Your task to perform on an android device: Open location settings Image 0: 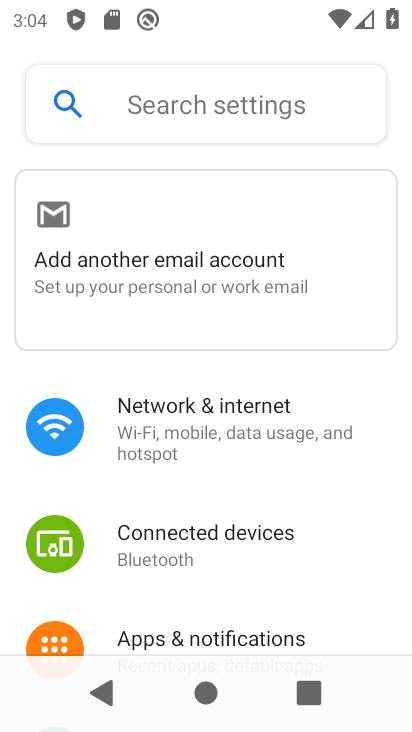
Step 0: press home button
Your task to perform on an android device: Open location settings Image 1: 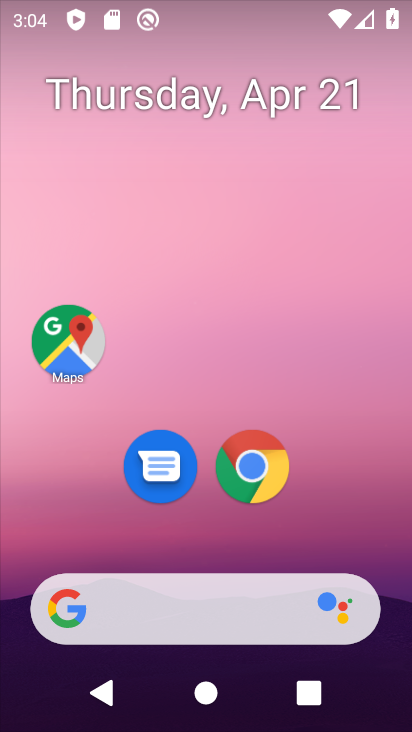
Step 1: drag from (228, 558) to (228, 181)
Your task to perform on an android device: Open location settings Image 2: 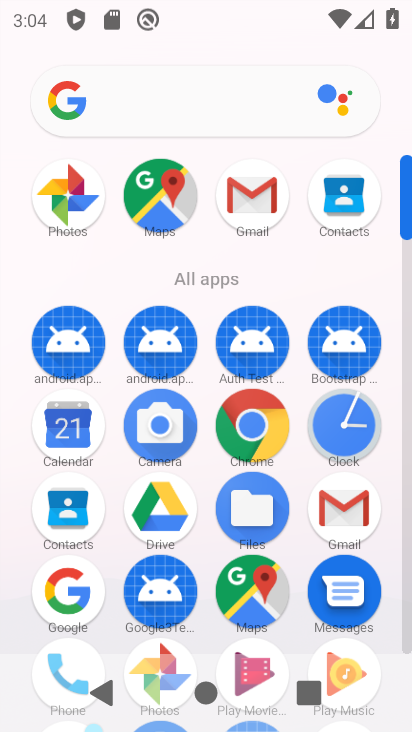
Step 2: drag from (195, 561) to (206, 230)
Your task to perform on an android device: Open location settings Image 3: 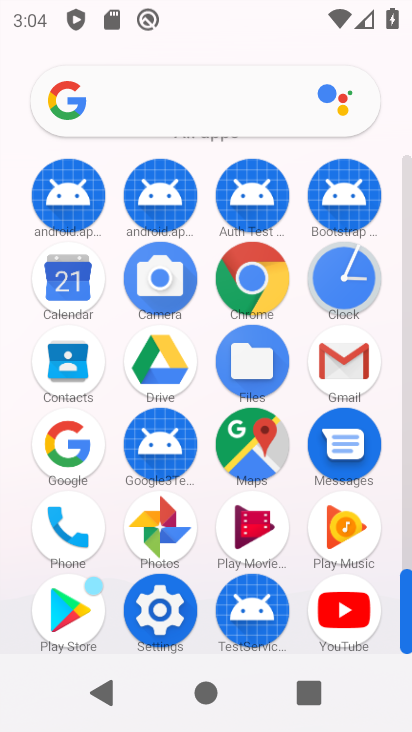
Step 3: click (168, 612)
Your task to perform on an android device: Open location settings Image 4: 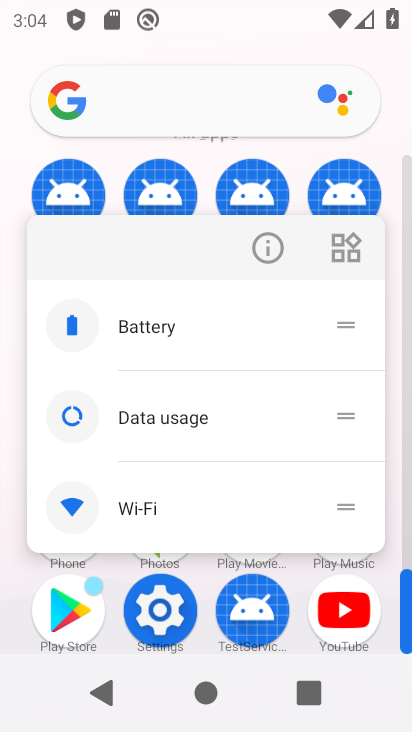
Step 4: click (169, 591)
Your task to perform on an android device: Open location settings Image 5: 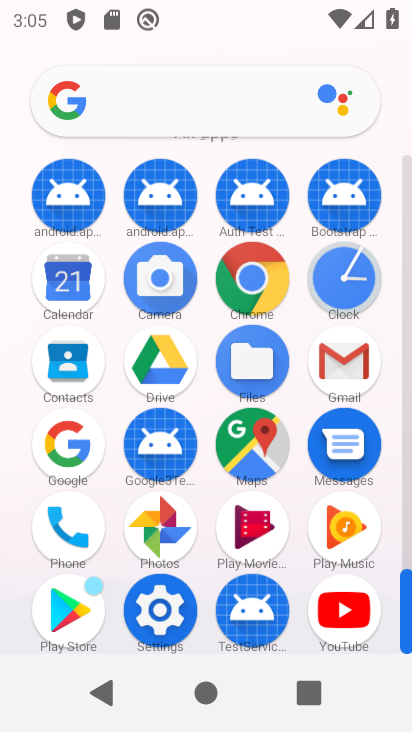
Step 5: click (156, 620)
Your task to perform on an android device: Open location settings Image 6: 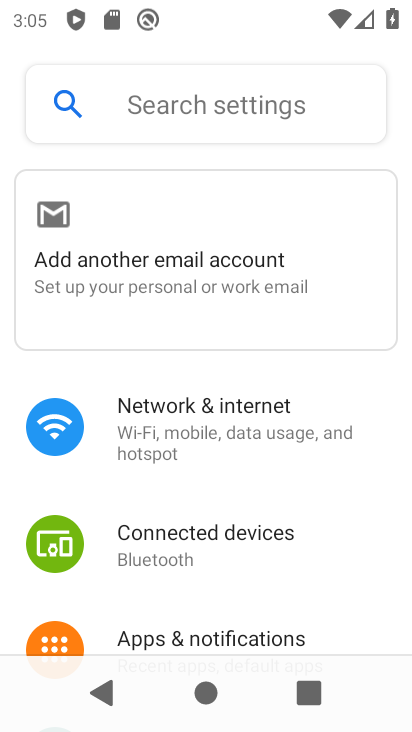
Step 6: drag from (249, 584) to (250, 253)
Your task to perform on an android device: Open location settings Image 7: 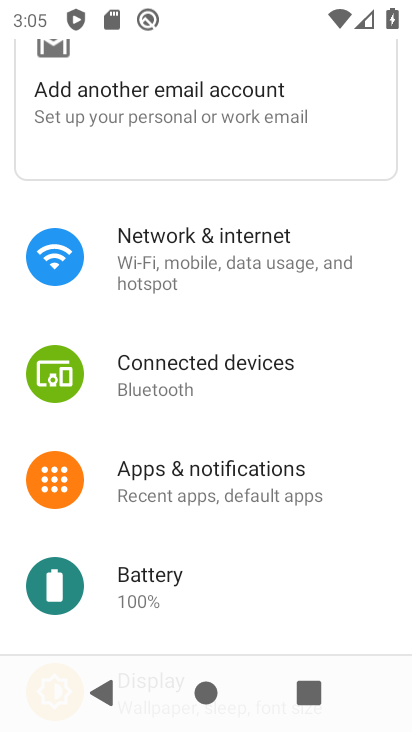
Step 7: drag from (224, 581) to (226, 326)
Your task to perform on an android device: Open location settings Image 8: 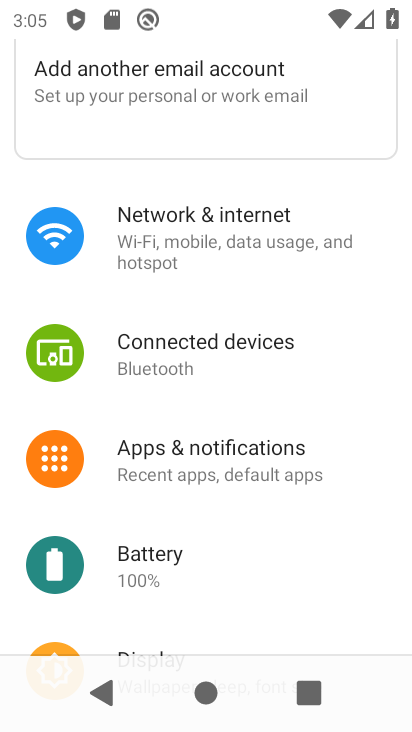
Step 8: drag from (232, 589) to (246, 250)
Your task to perform on an android device: Open location settings Image 9: 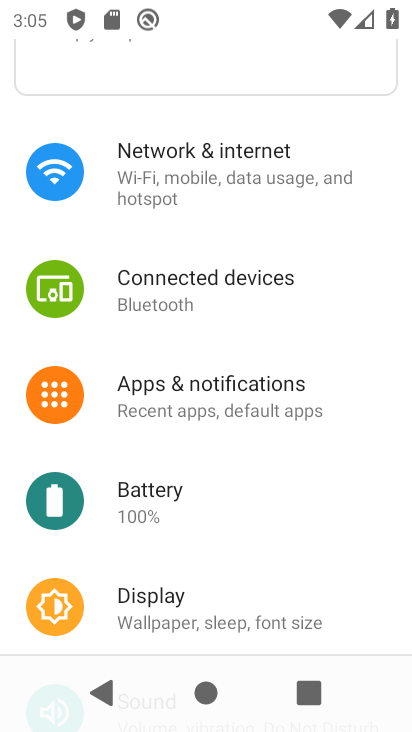
Step 9: drag from (242, 438) to (250, 272)
Your task to perform on an android device: Open location settings Image 10: 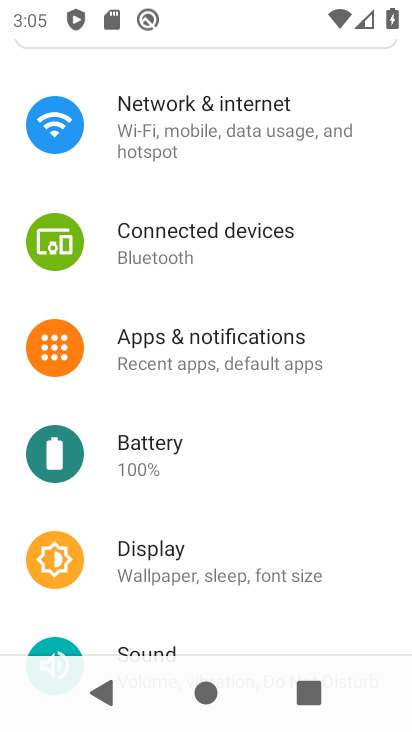
Step 10: drag from (241, 449) to (248, 349)
Your task to perform on an android device: Open location settings Image 11: 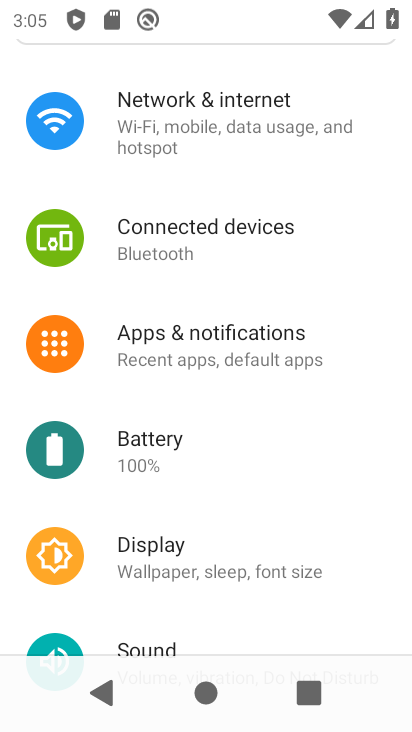
Step 11: drag from (255, 513) to (271, 289)
Your task to perform on an android device: Open location settings Image 12: 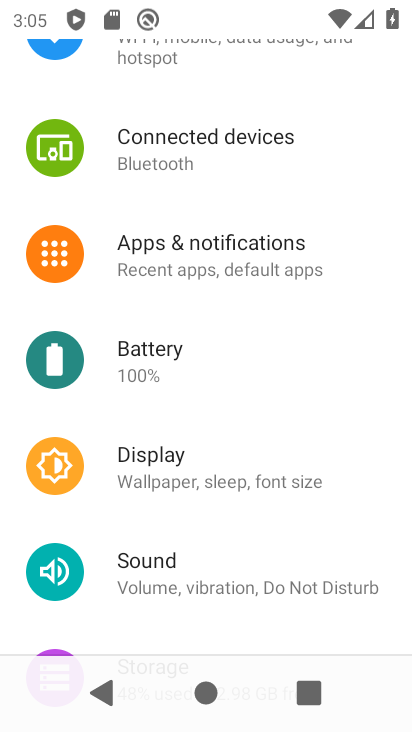
Step 12: drag from (271, 509) to (272, 301)
Your task to perform on an android device: Open location settings Image 13: 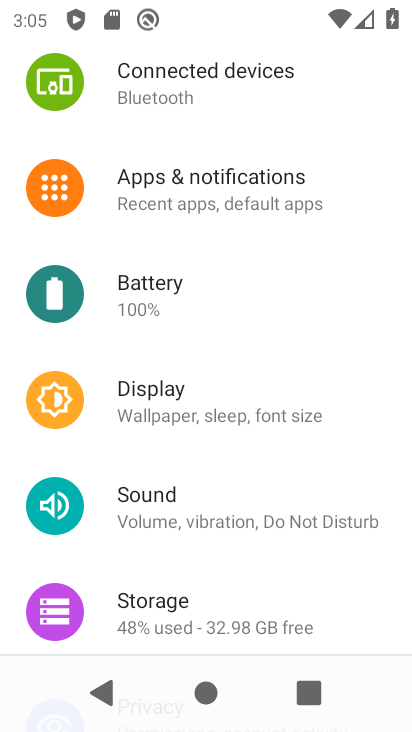
Step 13: drag from (276, 574) to (289, 235)
Your task to perform on an android device: Open location settings Image 14: 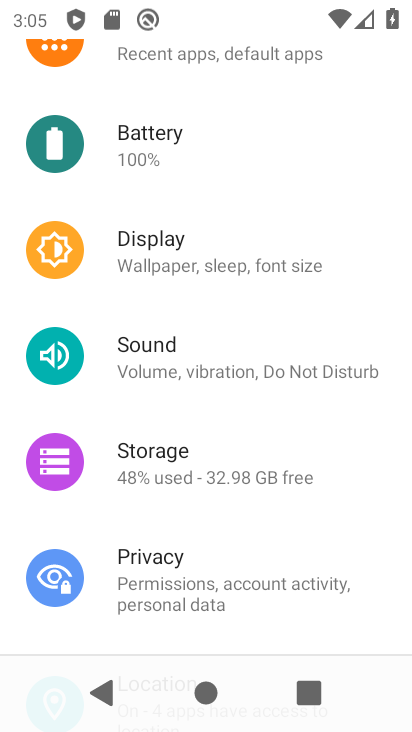
Step 14: drag from (227, 543) to (252, 302)
Your task to perform on an android device: Open location settings Image 15: 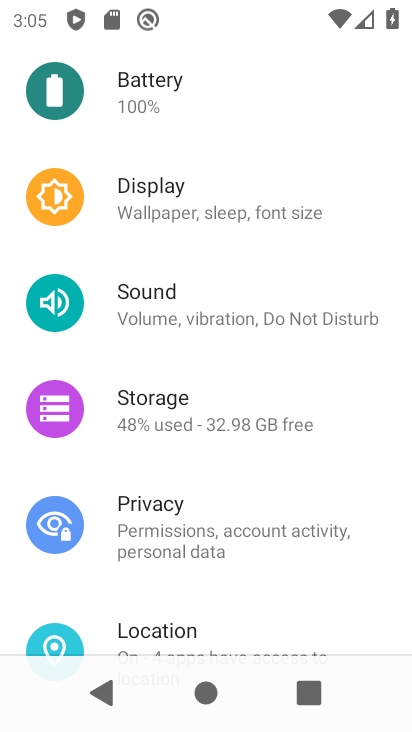
Step 15: click (243, 628)
Your task to perform on an android device: Open location settings Image 16: 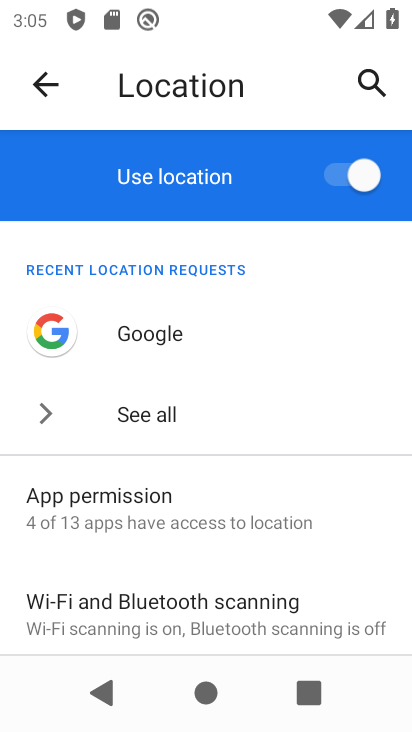
Step 16: task complete